Your task to perform on an android device: Open Amazon Image 0: 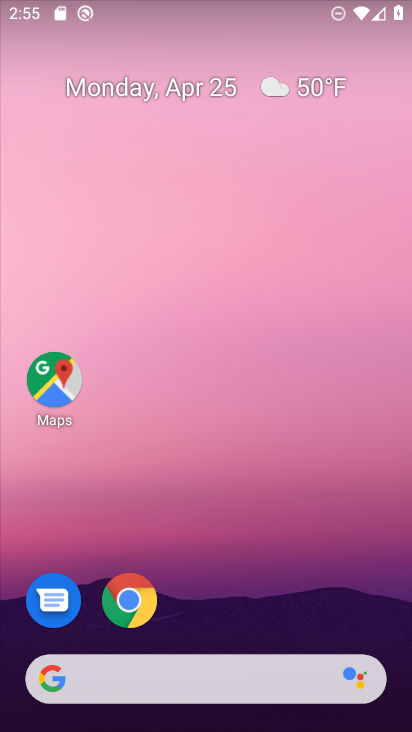
Step 0: drag from (186, 644) to (139, 62)
Your task to perform on an android device: Open Amazon Image 1: 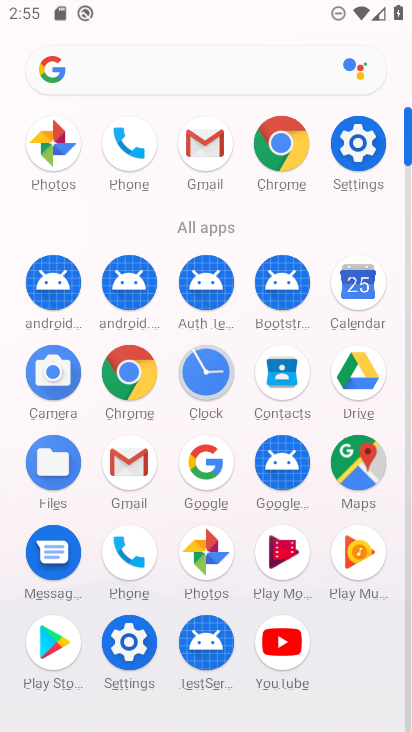
Step 1: click (131, 383)
Your task to perform on an android device: Open Amazon Image 2: 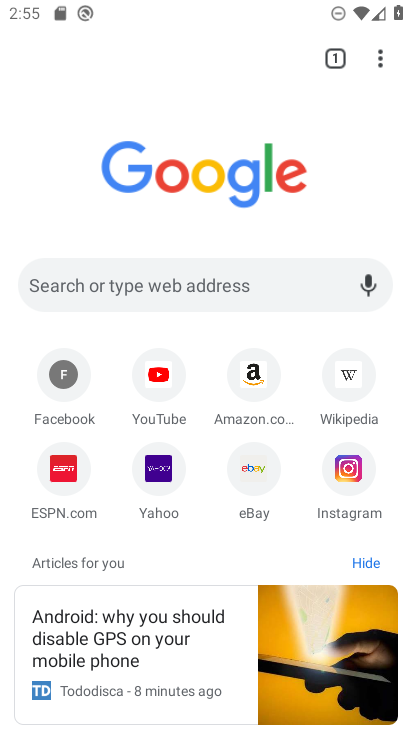
Step 2: click (247, 369)
Your task to perform on an android device: Open Amazon Image 3: 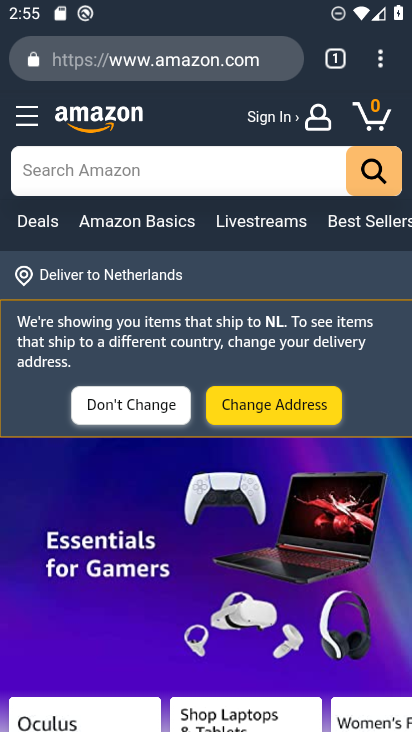
Step 3: task complete